Your task to perform on an android device: Go to notification settings Image 0: 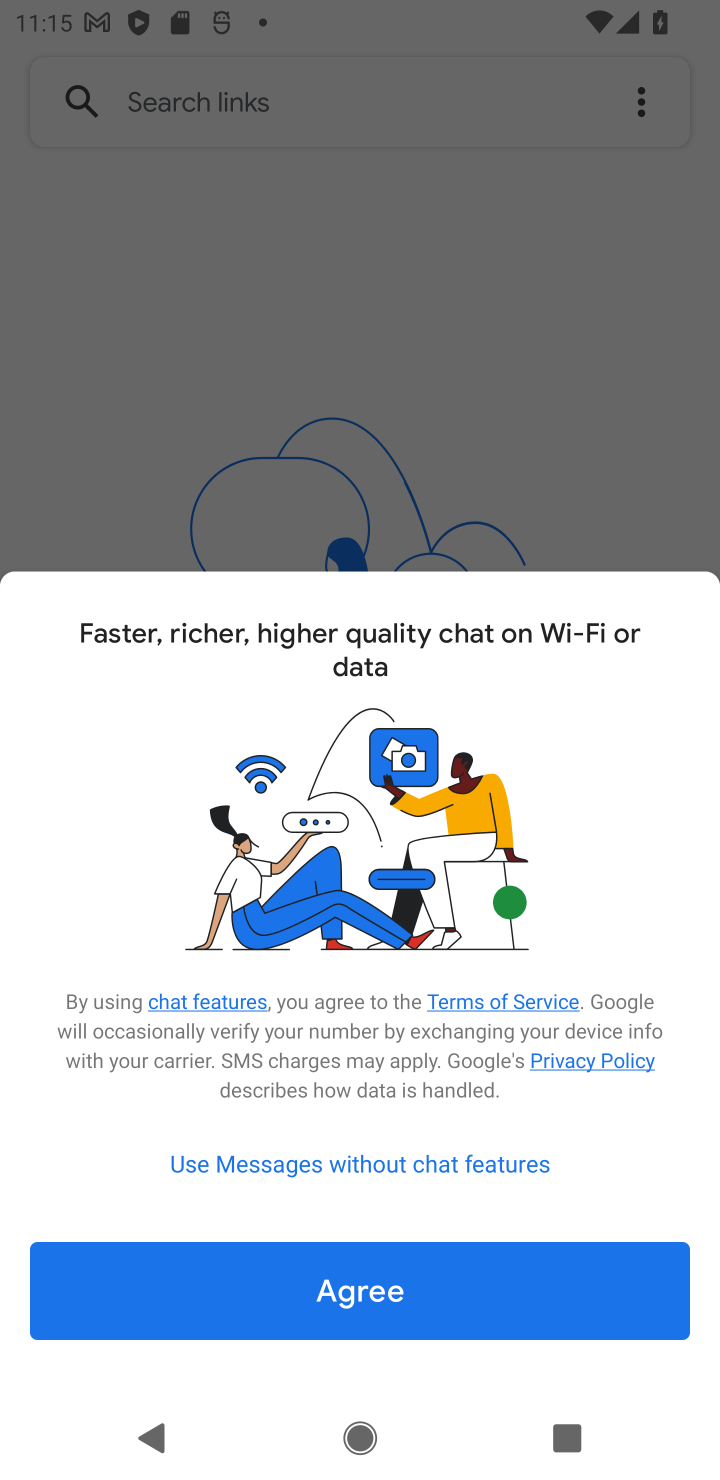
Step 0: press home button
Your task to perform on an android device: Go to notification settings Image 1: 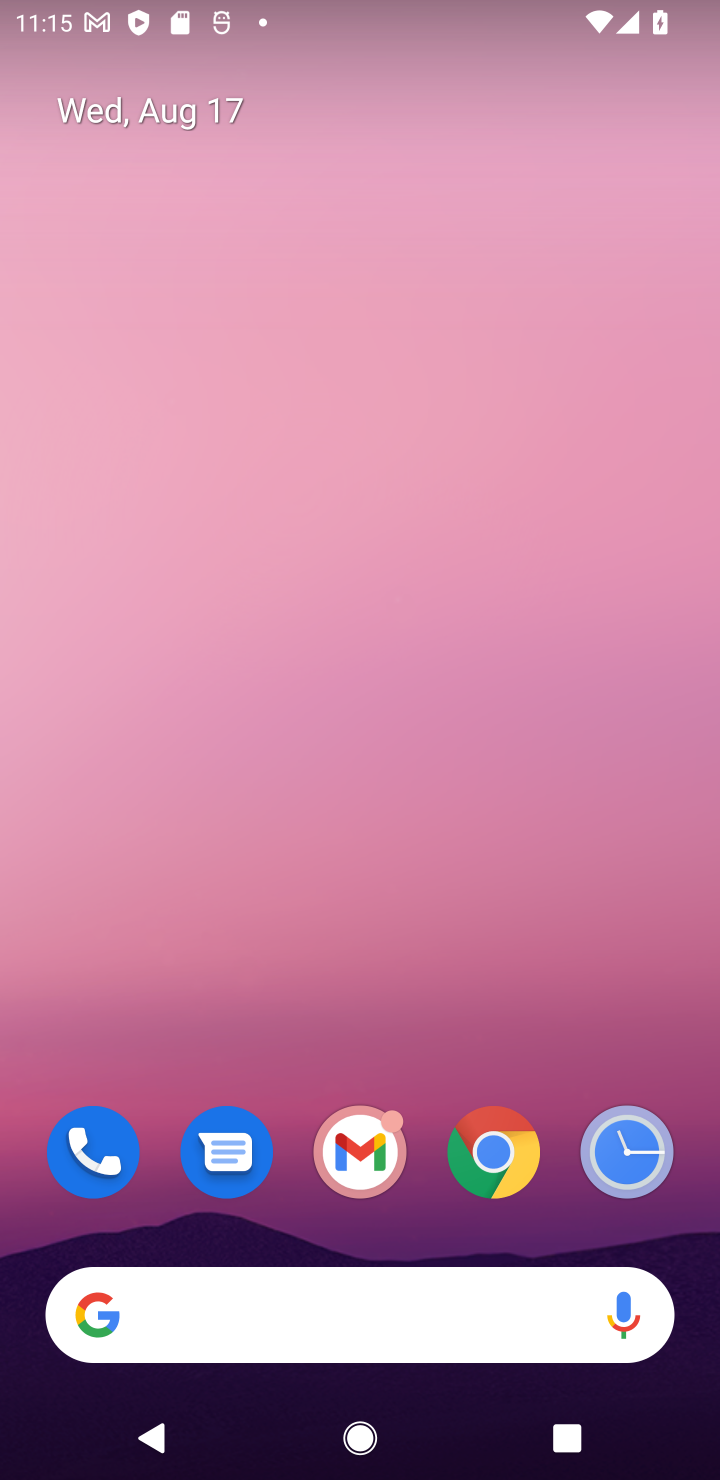
Step 1: drag from (685, 1228) to (218, 8)
Your task to perform on an android device: Go to notification settings Image 2: 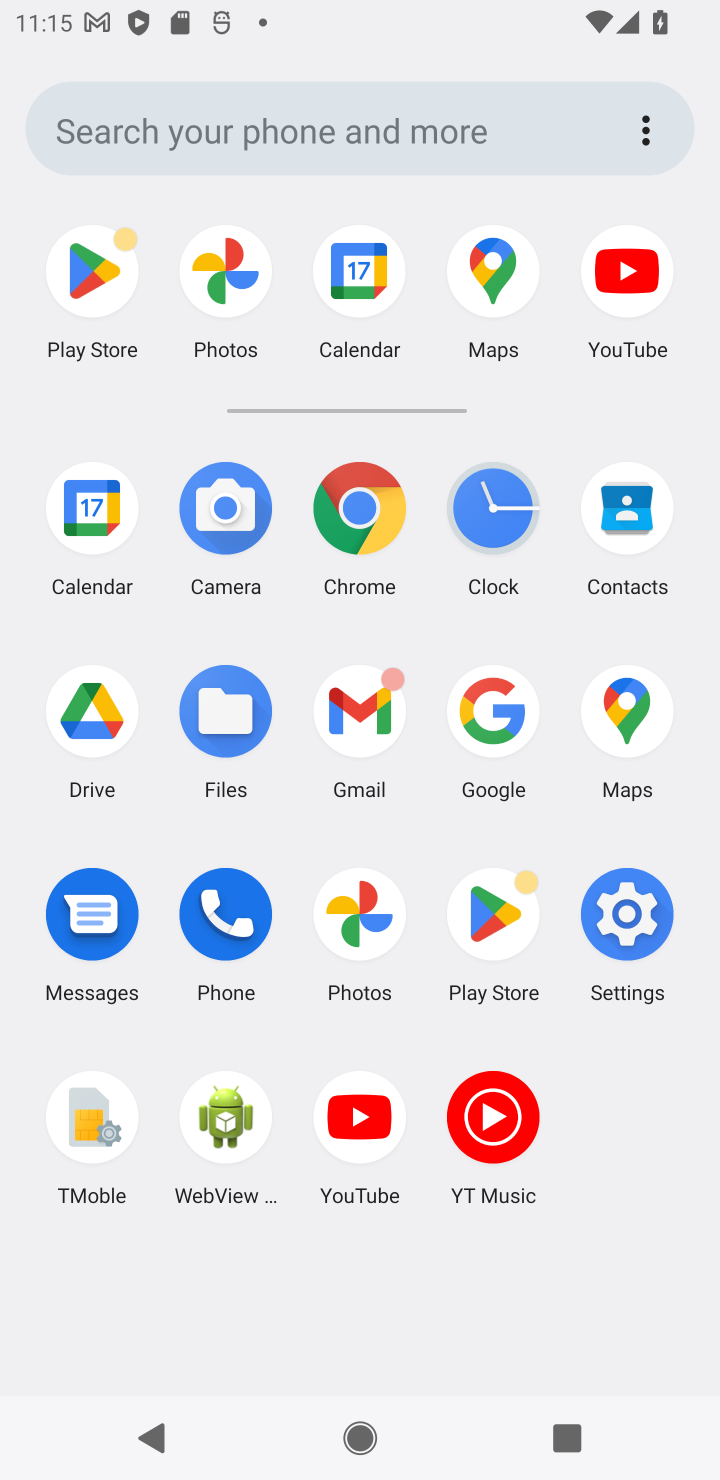
Step 2: click (634, 931)
Your task to perform on an android device: Go to notification settings Image 3: 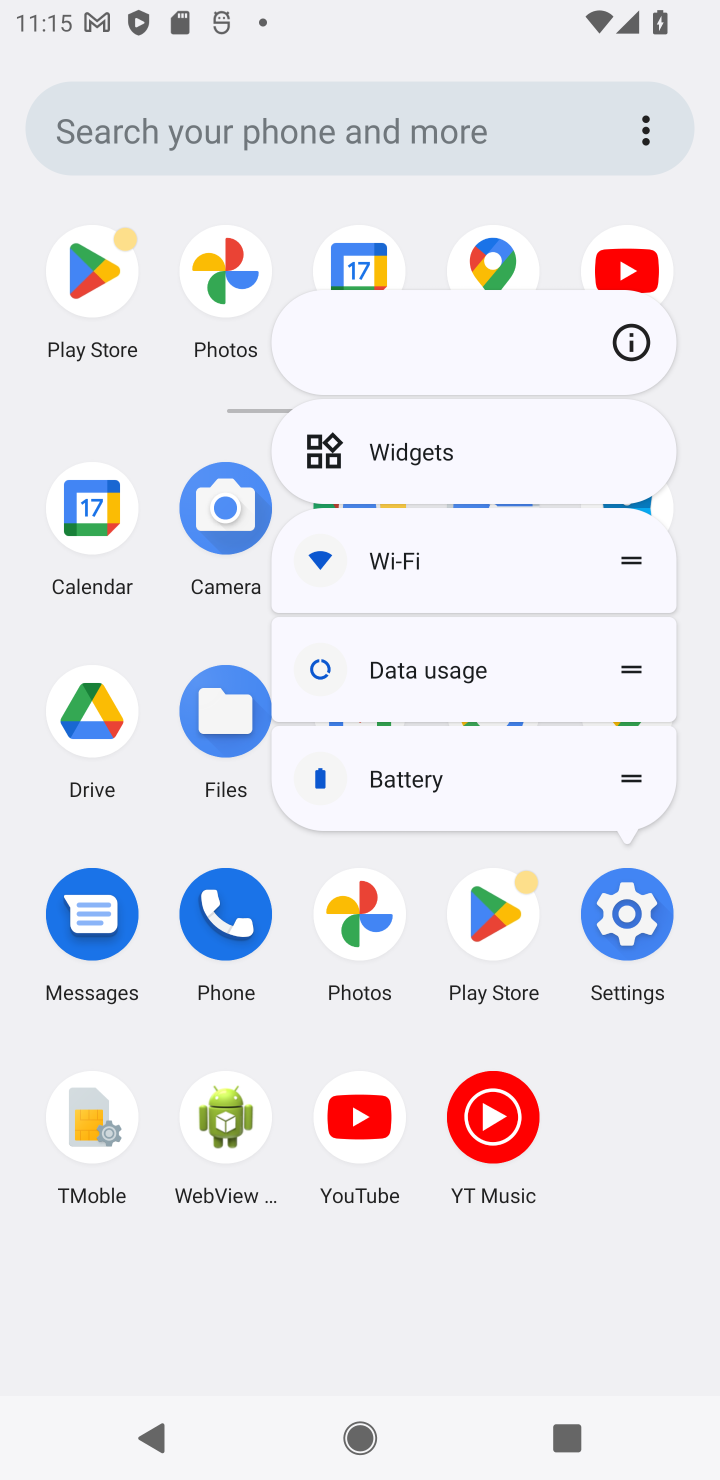
Step 3: click (634, 931)
Your task to perform on an android device: Go to notification settings Image 4: 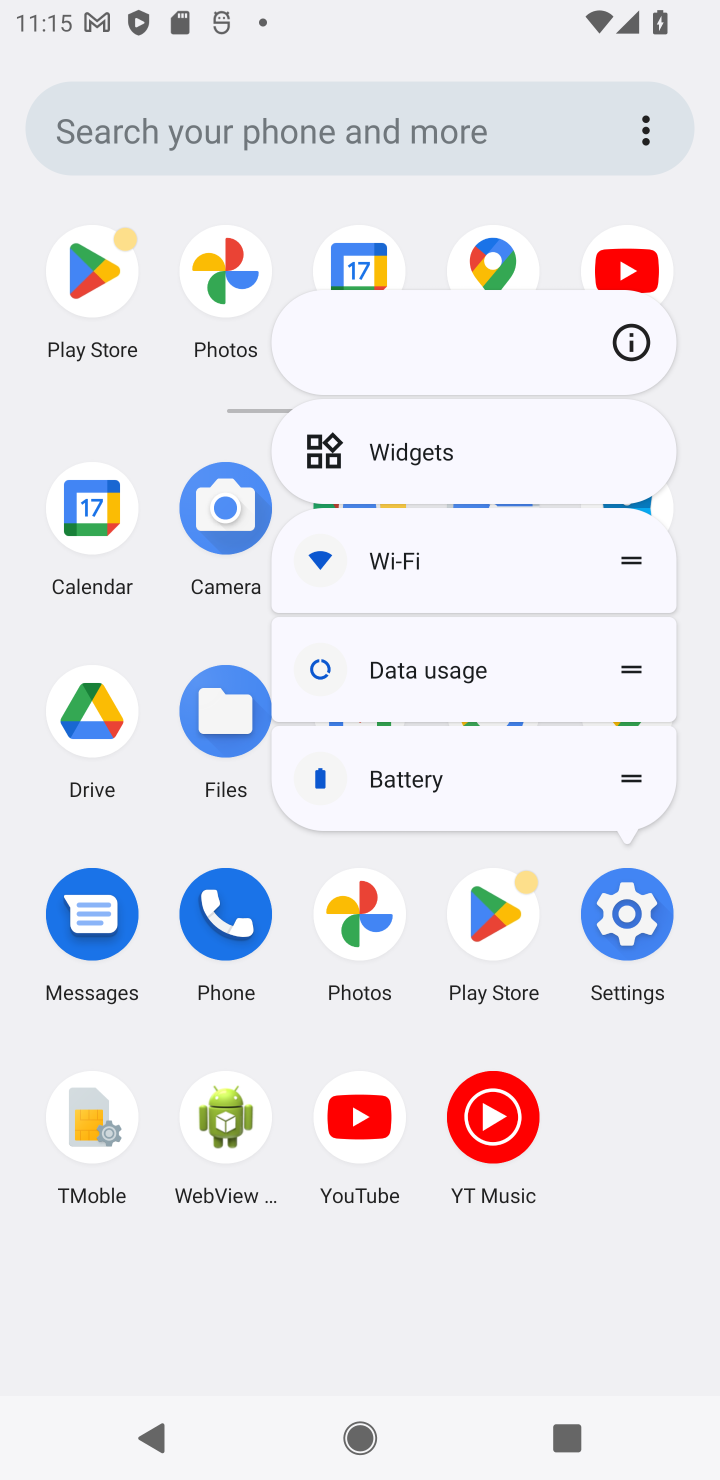
Step 4: click (625, 933)
Your task to perform on an android device: Go to notification settings Image 5: 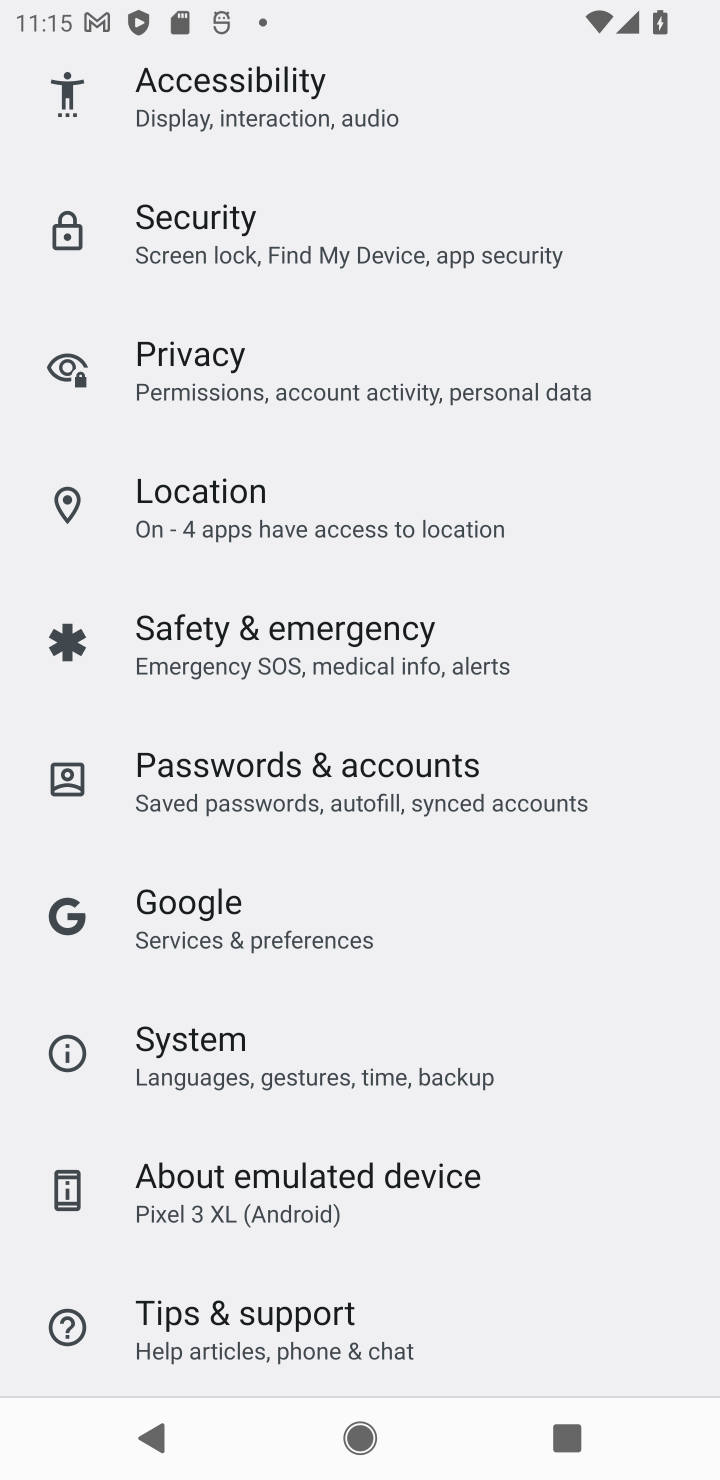
Step 5: drag from (372, 208) to (450, 1471)
Your task to perform on an android device: Go to notification settings Image 6: 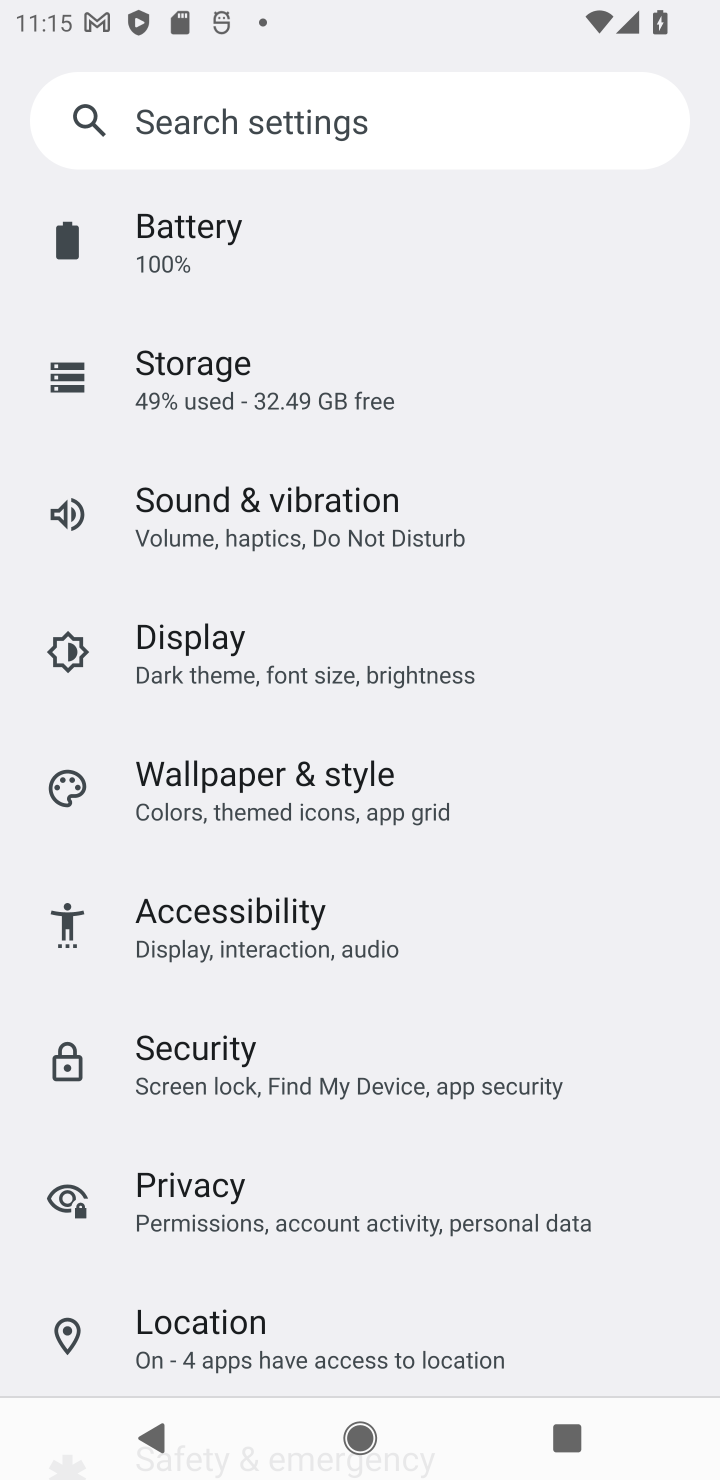
Step 6: drag from (225, 338) to (437, 1404)
Your task to perform on an android device: Go to notification settings Image 7: 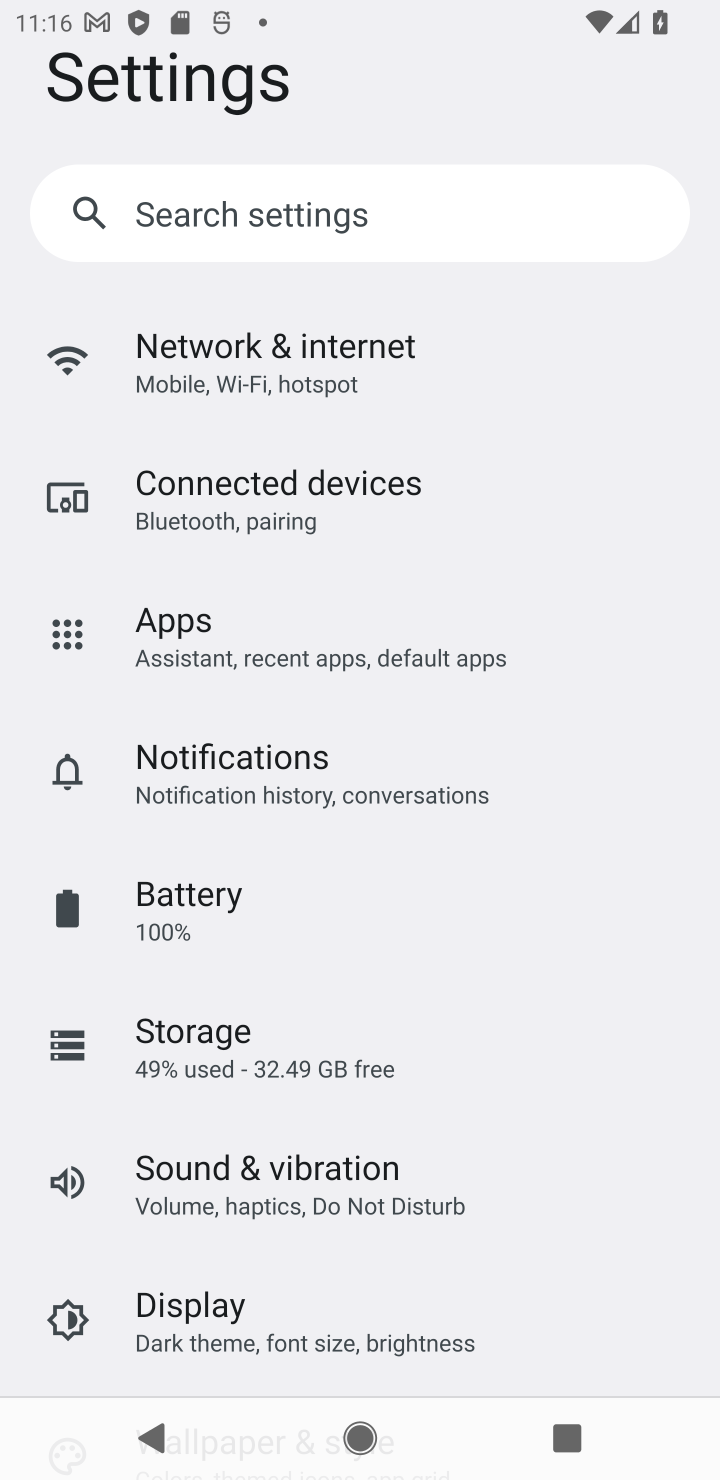
Step 7: click (212, 777)
Your task to perform on an android device: Go to notification settings Image 8: 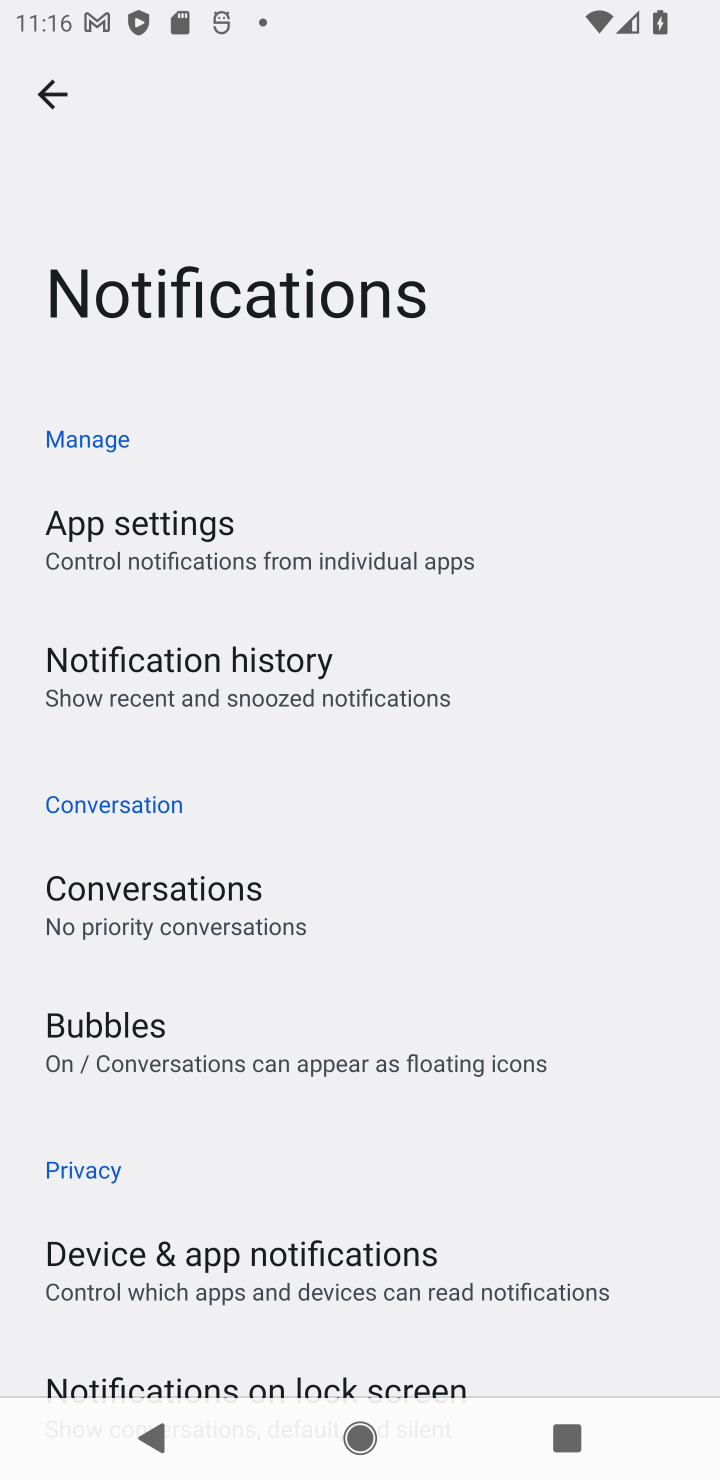
Step 8: task complete